Your task to perform on an android device: Open settings Image 0: 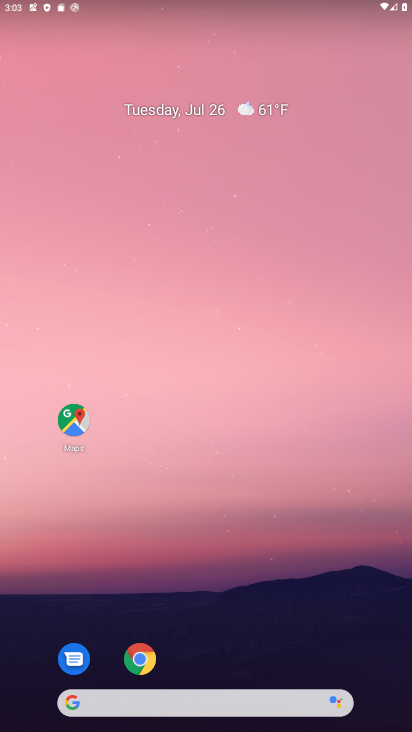
Step 0: drag from (207, 548) to (231, 24)
Your task to perform on an android device: Open settings Image 1: 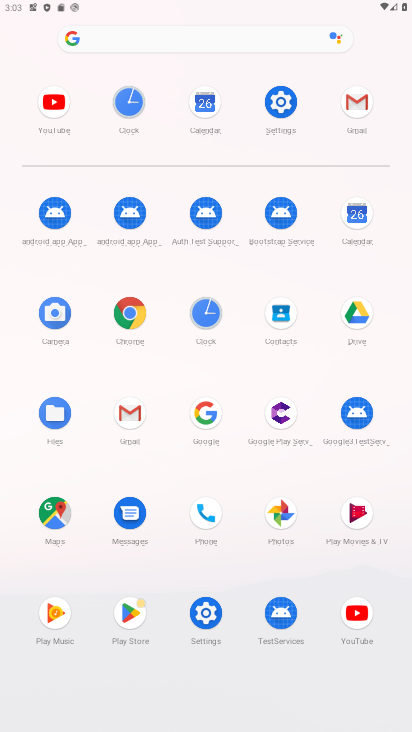
Step 1: click (286, 117)
Your task to perform on an android device: Open settings Image 2: 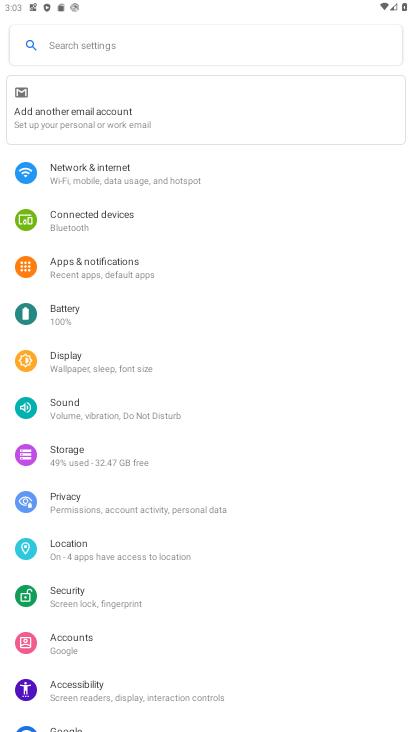
Step 2: task complete